Your task to perform on an android device: Open Youtube and go to the subscriptions tab Image 0: 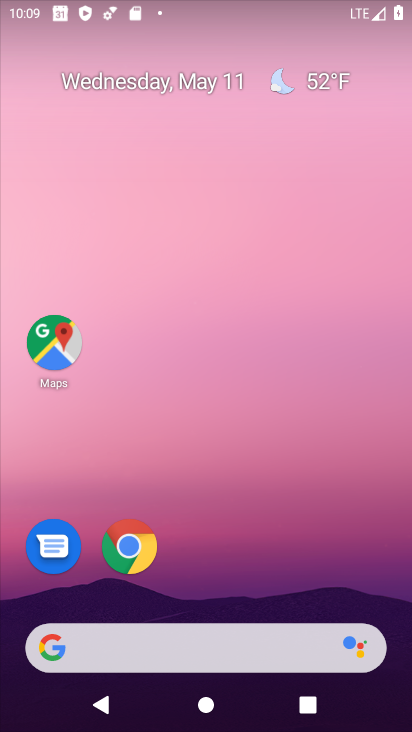
Step 0: drag from (180, 640) to (183, 167)
Your task to perform on an android device: Open Youtube and go to the subscriptions tab Image 1: 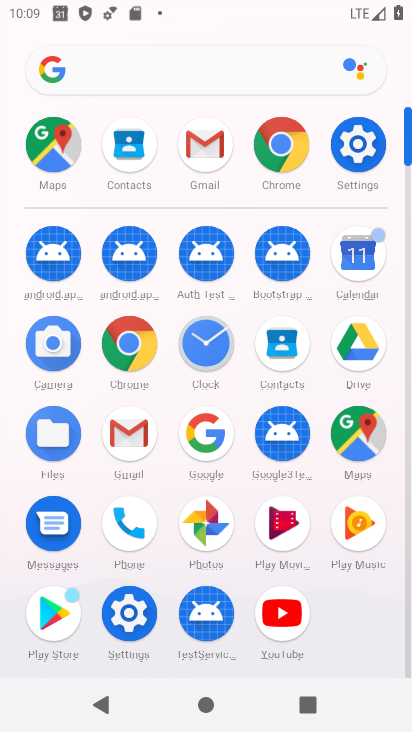
Step 1: click (285, 626)
Your task to perform on an android device: Open Youtube and go to the subscriptions tab Image 2: 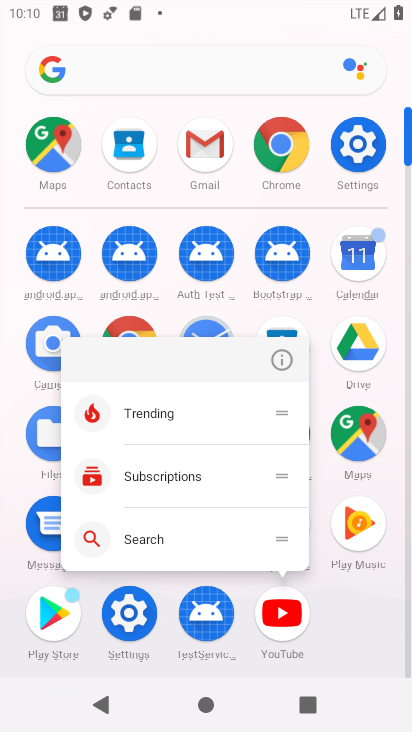
Step 2: click (294, 605)
Your task to perform on an android device: Open Youtube and go to the subscriptions tab Image 3: 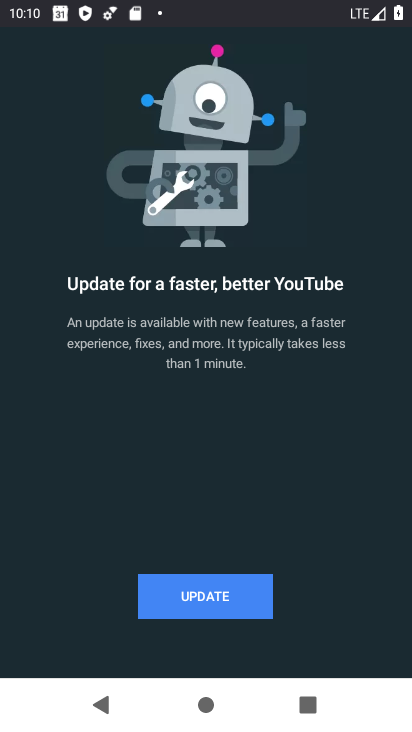
Step 3: click (255, 607)
Your task to perform on an android device: Open Youtube and go to the subscriptions tab Image 4: 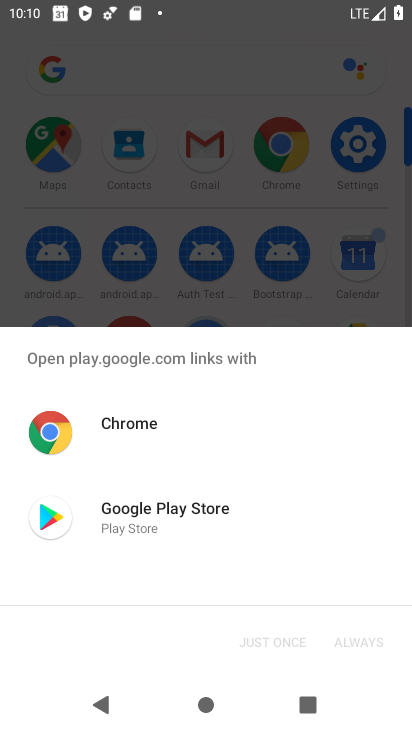
Step 4: click (181, 523)
Your task to perform on an android device: Open Youtube and go to the subscriptions tab Image 5: 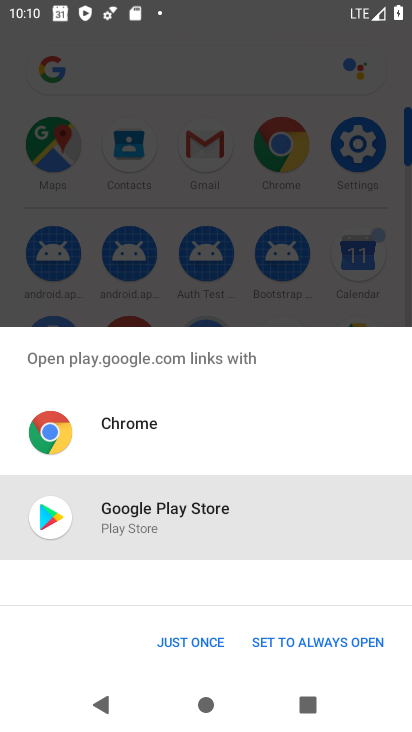
Step 5: click (178, 644)
Your task to perform on an android device: Open Youtube and go to the subscriptions tab Image 6: 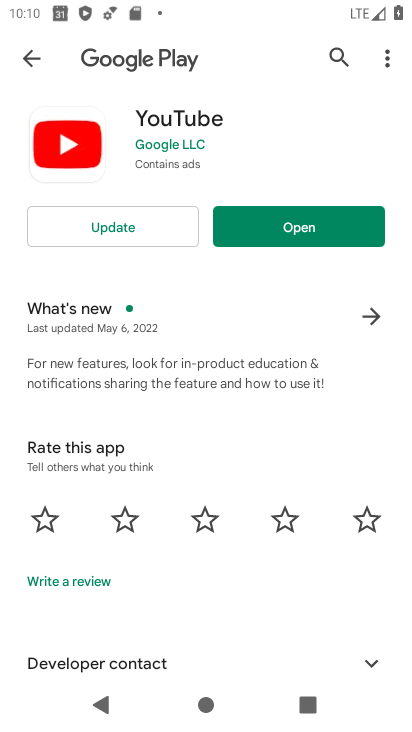
Step 6: click (76, 229)
Your task to perform on an android device: Open Youtube and go to the subscriptions tab Image 7: 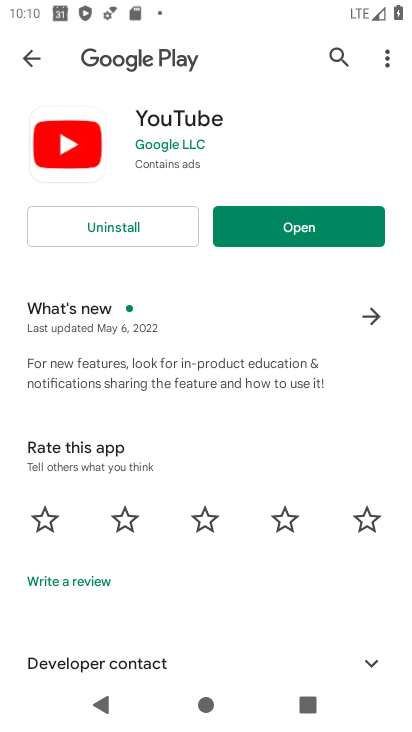
Step 7: click (246, 236)
Your task to perform on an android device: Open Youtube and go to the subscriptions tab Image 8: 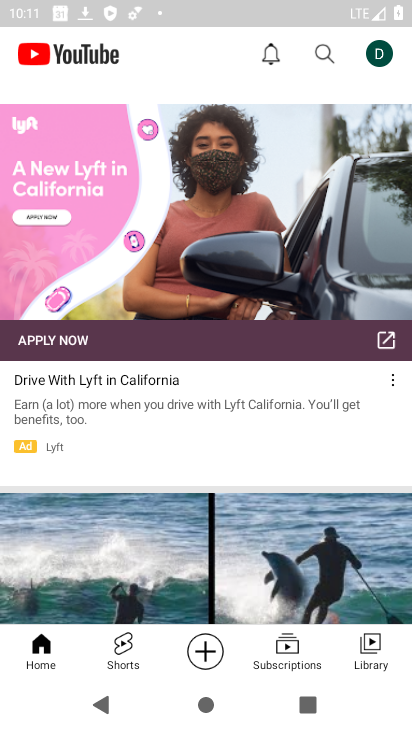
Step 8: click (281, 644)
Your task to perform on an android device: Open Youtube and go to the subscriptions tab Image 9: 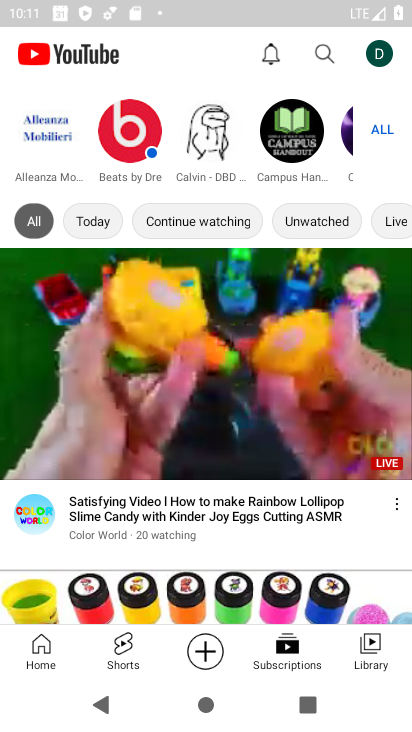
Step 9: task complete